Your task to perform on an android device: toggle location history Image 0: 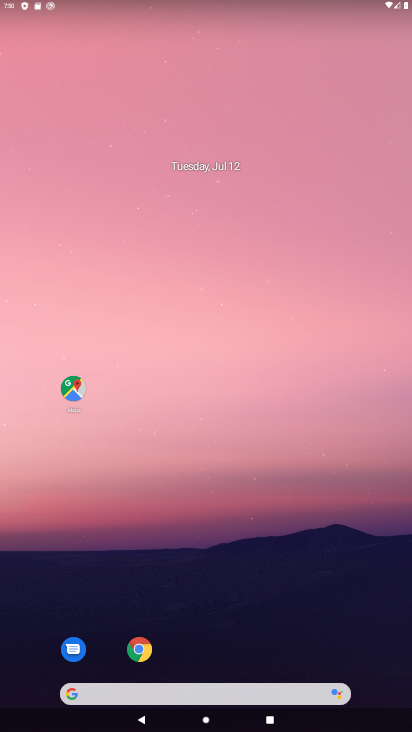
Step 0: drag from (329, 588) to (253, 118)
Your task to perform on an android device: toggle location history Image 1: 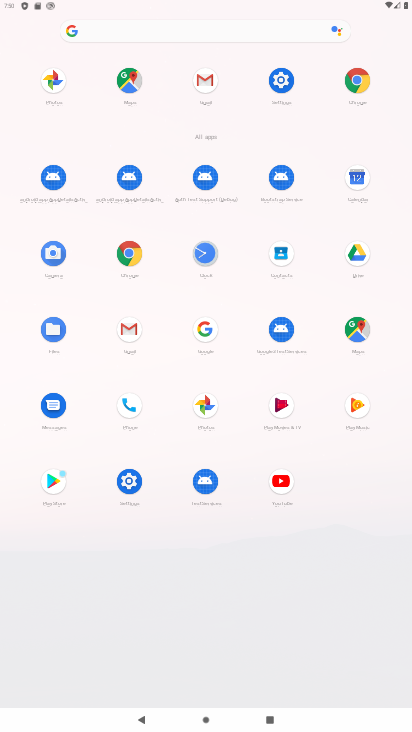
Step 1: click (275, 66)
Your task to perform on an android device: toggle location history Image 2: 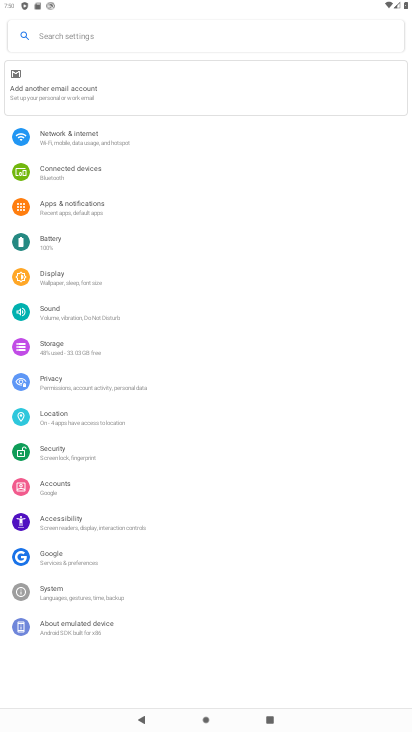
Step 2: click (65, 417)
Your task to perform on an android device: toggle location history Image 3: 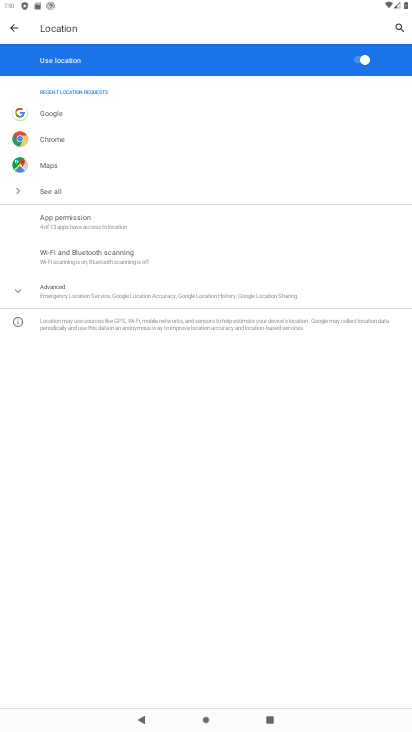
Step 3: click (131, 288)
Your task to perform on an android device: toggle location history Image 4: 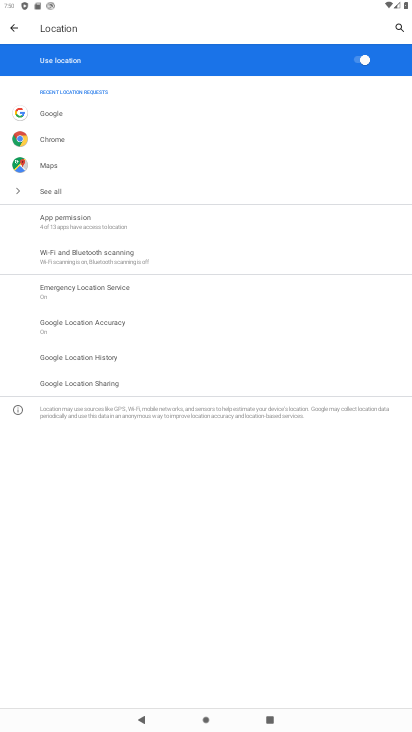
Step 4: click (118, 358)
Your task to perform on an android device: toggle location history Image 5: 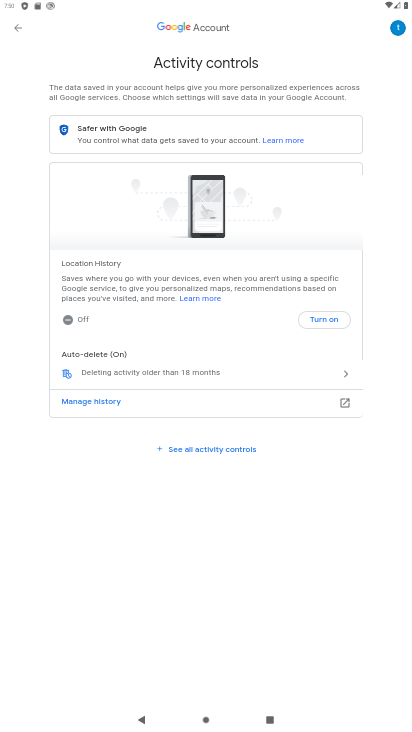
Step 5: click (327, 318)
Your task to perform on an android device: toggle location history Image 6: 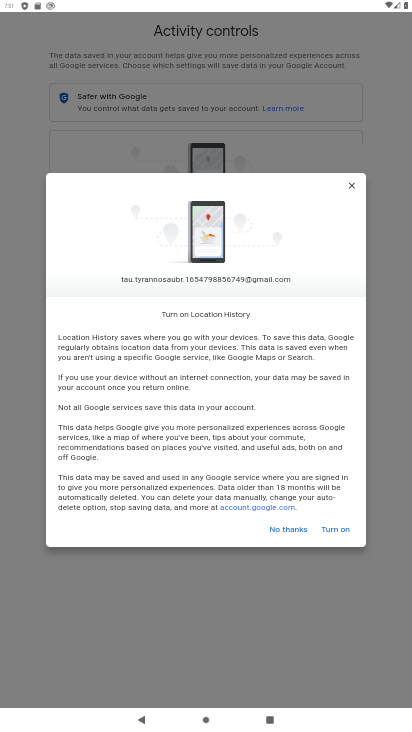
Step 6: click (344, 527)
Your task to perform on an android device: toggle location history Image 7: 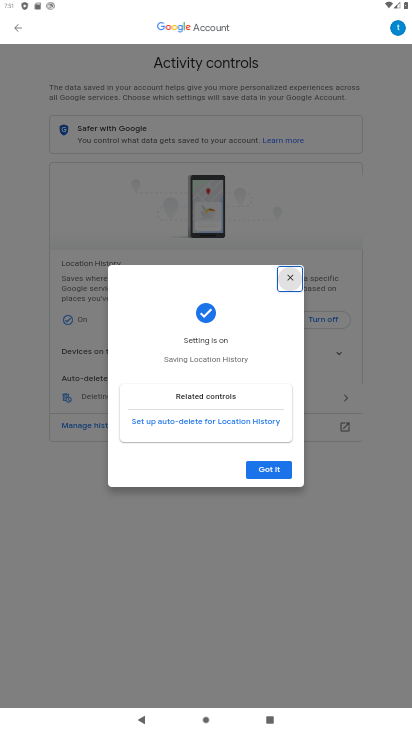
Step 7: task complete